Your task to perform on an android device: stop showing notifications on the lock screen Image 0: 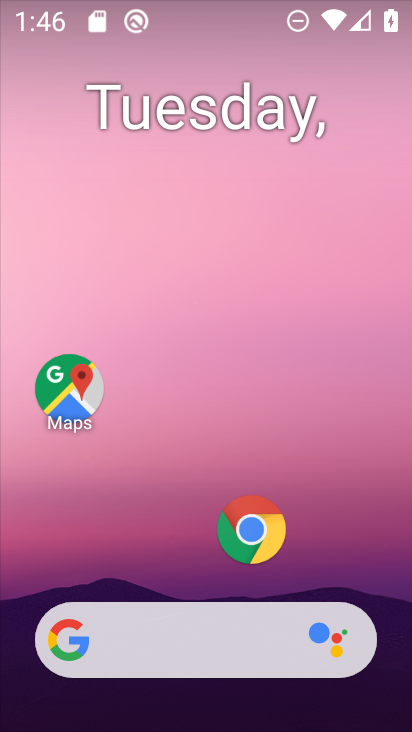
Step 0: drag from (144, 668) to (283, 14)
Your task to perform on an android device: stop showing notifications on the lock screen Image 1: 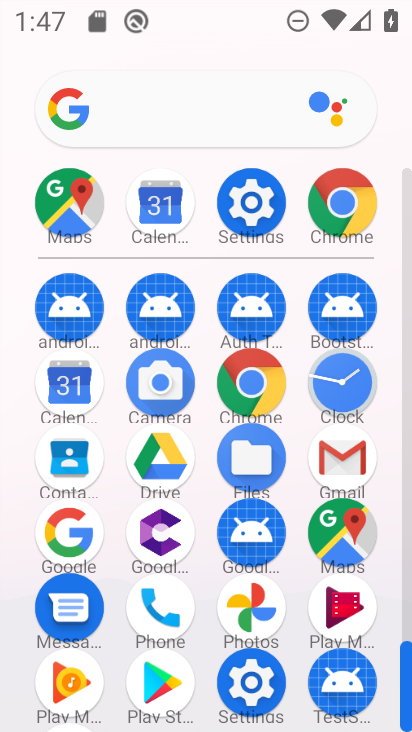
Step 1: click (231, 223)
Your task to perform on an android device: stop showing notifications on the lock screen Image 2: 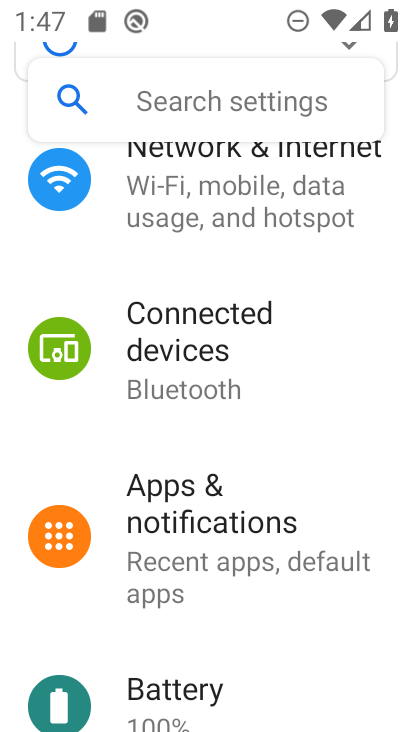
Step 2: click (216, 109)
Your task to perform on an android device: stop showing notifications on the lock screen Image 3: 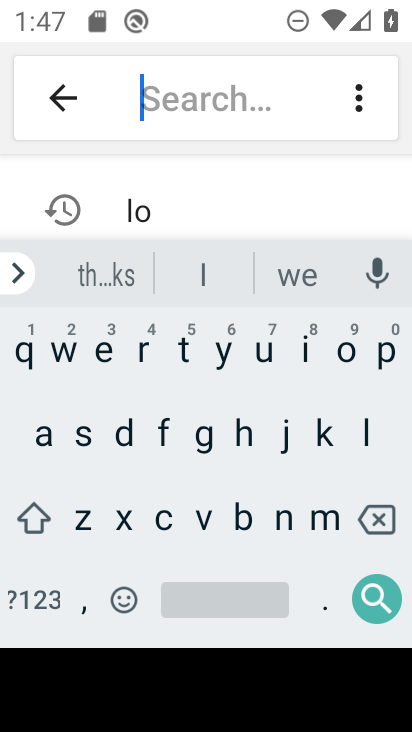
Step 3: click (278, 512)
Your task to perform on an android device: stop showing notifications on the lock screen Image 4: 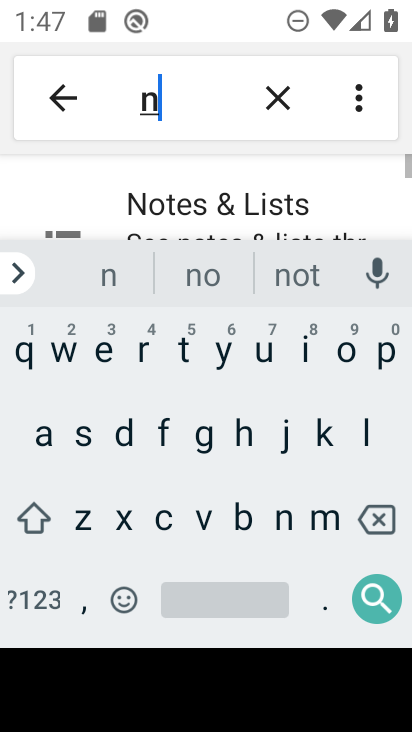
Step 4: click (336, 355)
Your task to perform on an android device: stop showing notifications on the lock screen Image 5: 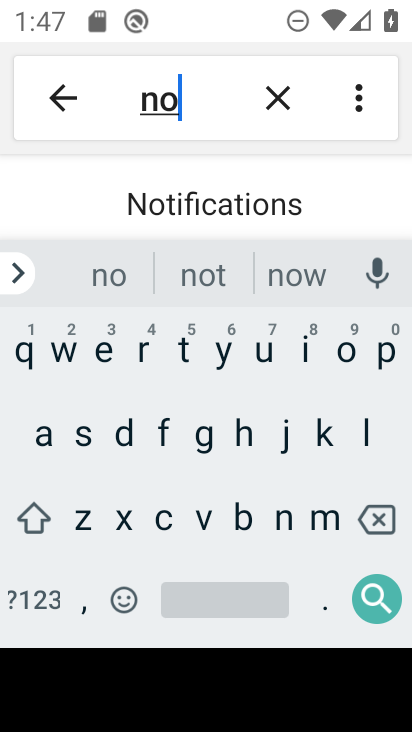
Step 5: click (226, 208)
Your task to perform on an android device: stop showing notifications on the lock screen Image 6: 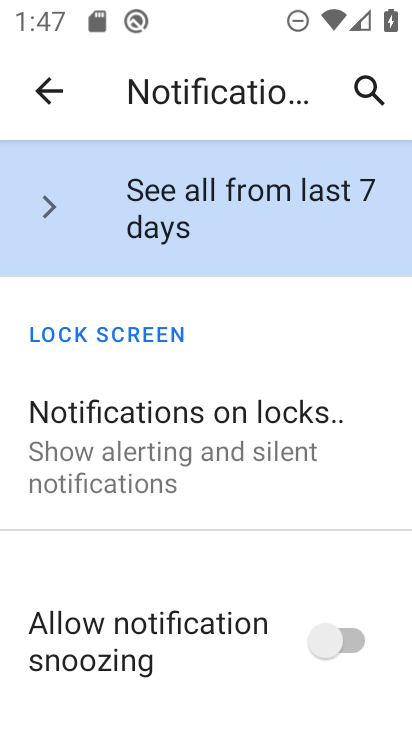
Step 6: click (141, 444)
Your task to perform on an android device: stop showing notifications on the lock screen Image 7: 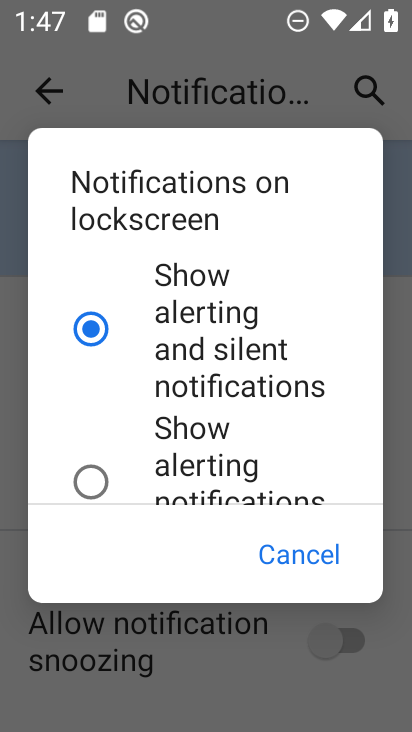
Step 7: drag from (144, 479) to (166, 323)
Your task to perform on an android device: stop showing notifications on the lock screen Image 8: 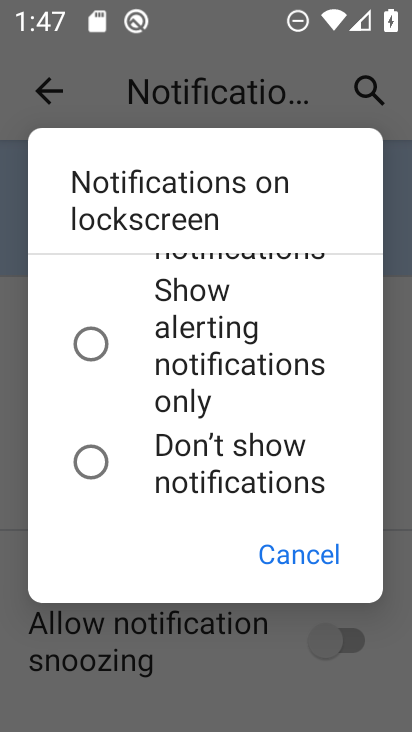
Step 8: click (153, 463)
Your task to perform on an android device: stop showing notifications on the lock screen Image 9: 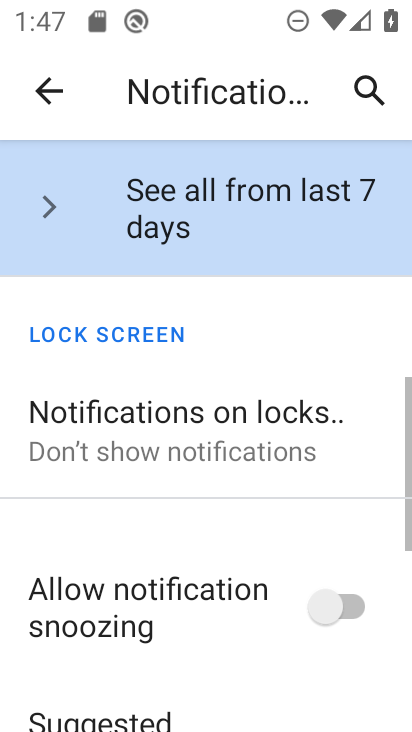
Step 9: task complete